Your task to perform on an android device: Go to ESPN.com Image 0: 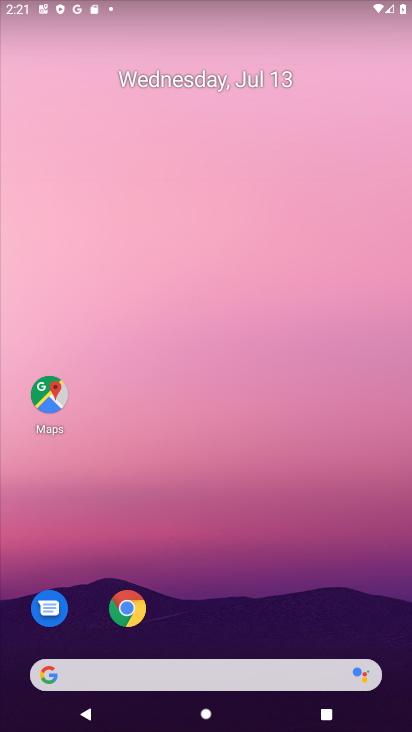
Step 0: drag from (207, 622) to (204, 303)
Your task to perform on an android device: Go to ESPN.com Image 1: 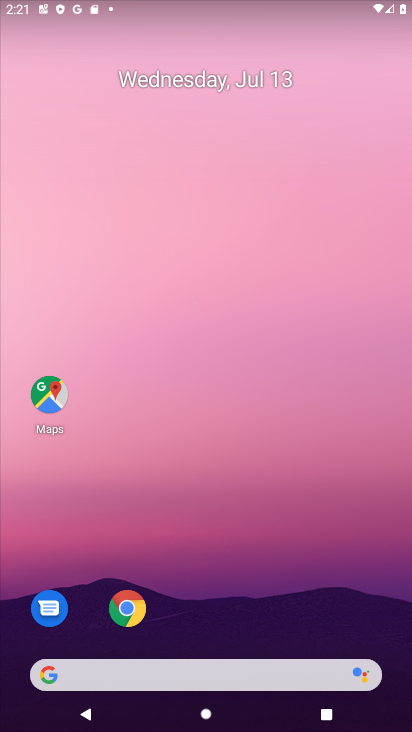
Step 1: drag from (244, 509) to (152, 273)
Your task to perform on an android device: Go to ESPN.com Image 2: 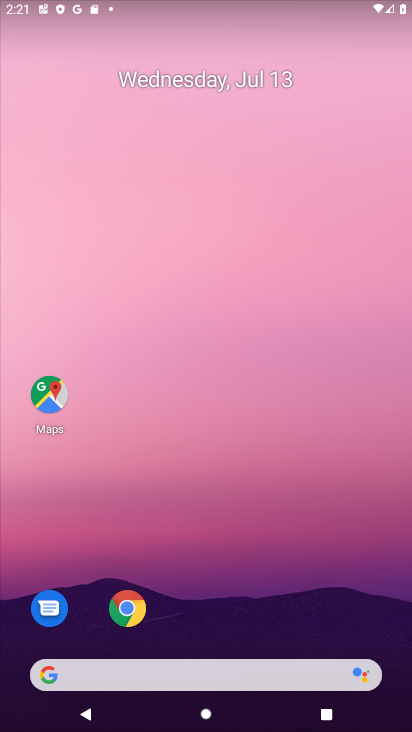
Step 2: drag from (248, 615) to (131, 161)
Your task to perform on an android device: Go to ESPN.com Image 3: 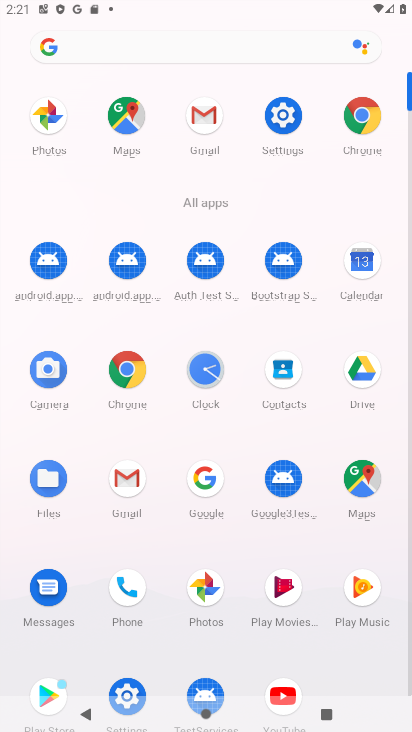
Step 3: click (366, 107)
Your task to perform on an android device: Go to ESPN.com Image 4: 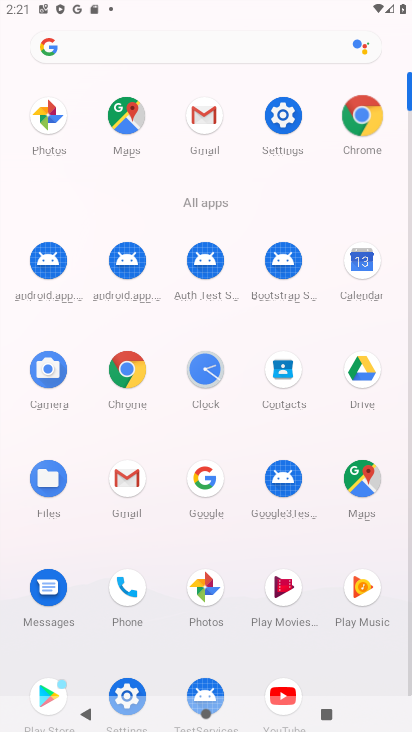
Step 4: click (381, 112)
Your task to perform on an android device: Go to ESPN.com Image 5: 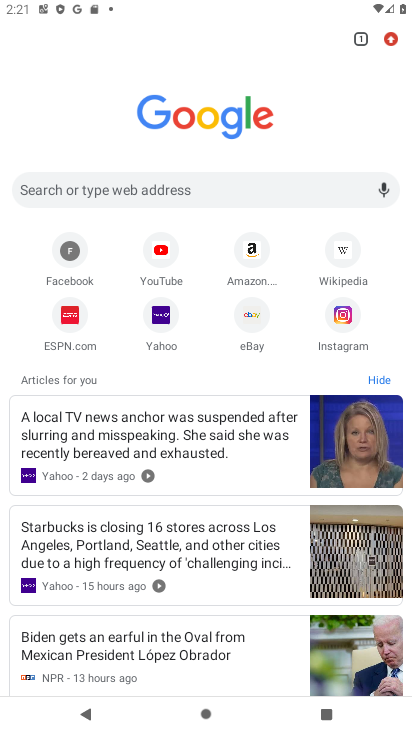
Step 5: click (63, 310)
Your task to perform on an android device: Go to ESPN.com Image 6: 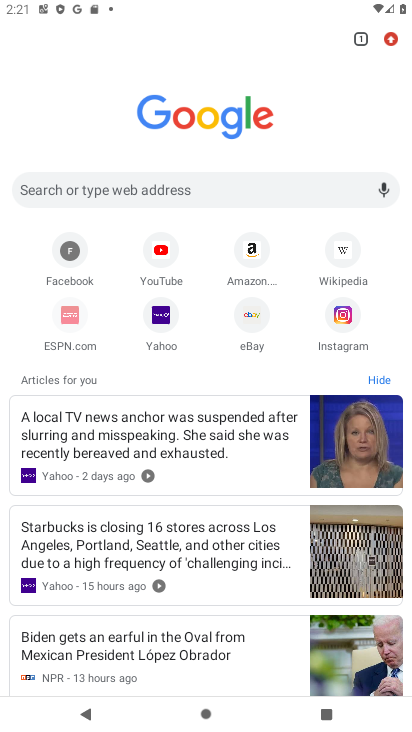
Step 6: click (64, 309)
Your task to perform on an android device: Go to ESPN.com Image 7: 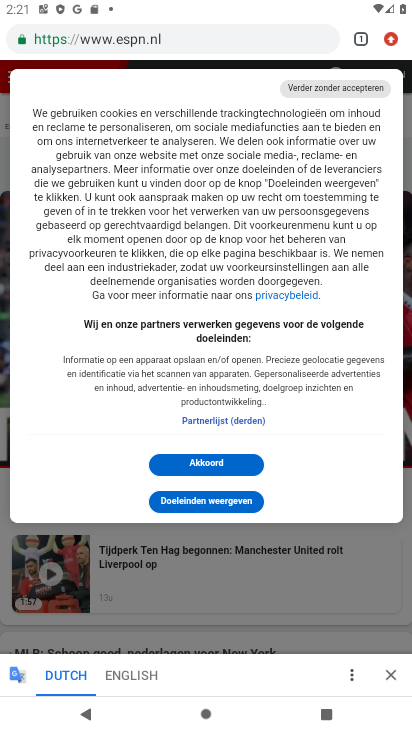
Step 7: task complete